Your task to perform on an android device: turn off sleep mode Image 0: 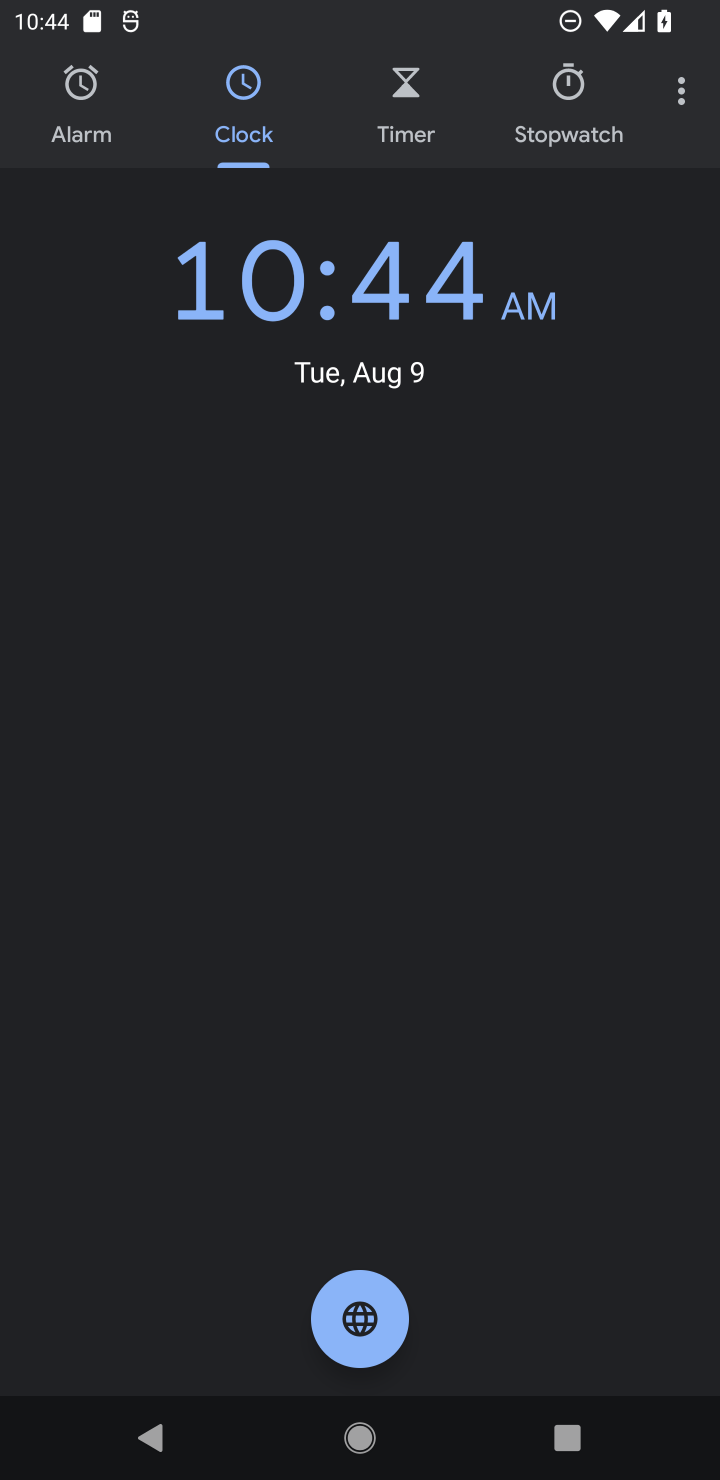
Step 0: drag from (384, 18) to (316, 1432)
Your task to perform on an android device: turn off sleep mode Image 1: 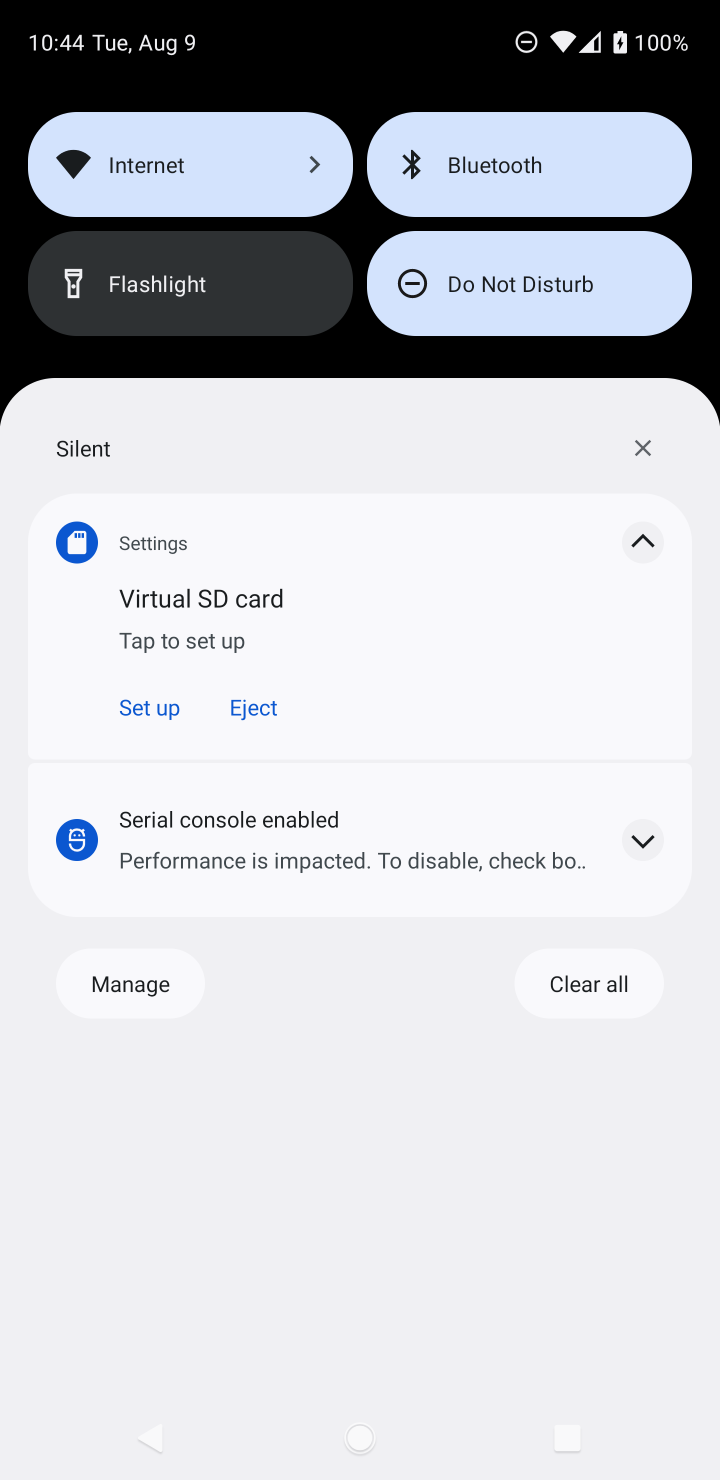
Step 1: click (442, 275)
Your task to perform on an android device: turn off sleep mode Image 2: 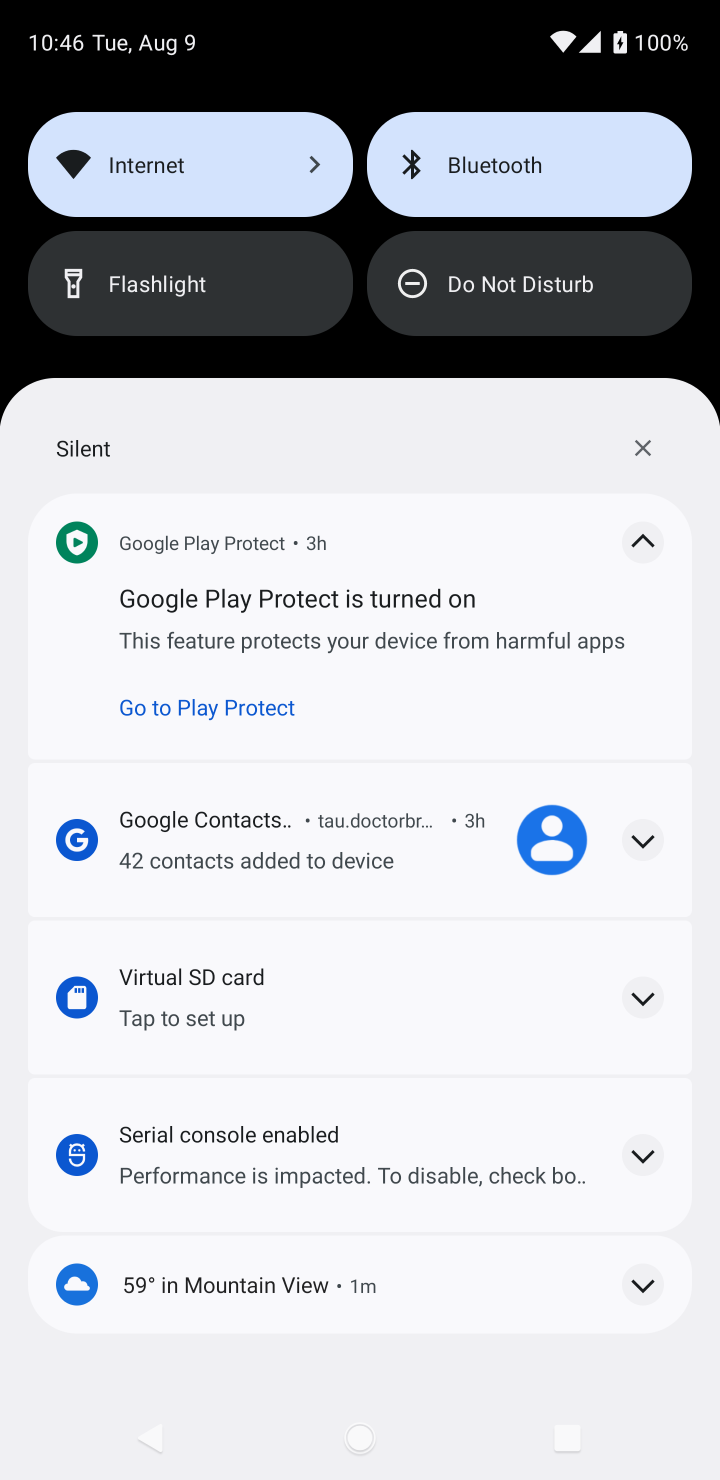
Step 2: task complete